Your task to perform on an android device: Open calendar and show me the third week of next month Image 0: 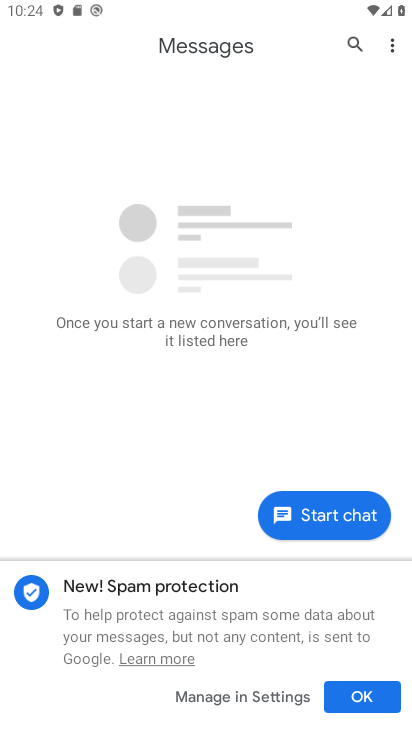
Step 0: press home button
Your task to perform on an android device: Open calendar and show me the third week of next month Image 1: 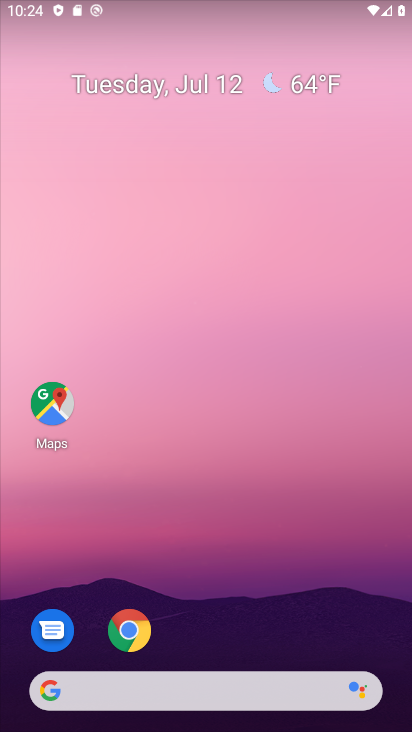
Step 1: drag from (345, 615) to (351, 174)
Your task to perform on an android device: Open calendar and show me the third week of next month Image 2: 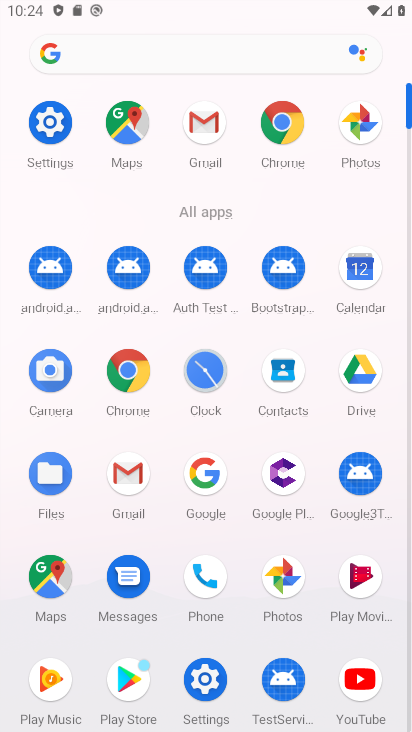
Step 2: click (356, 284)
Your task to perform on an android device: Open calendar and show me the third week of next month Image 3: 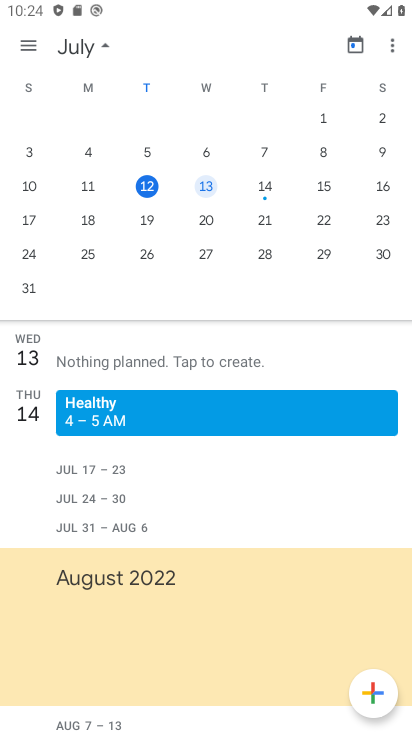
Step 3: drag from (390, 132) to (83, 120)
Your task to perform on an android device: Open calendar and show me the third week of next month Image 4: 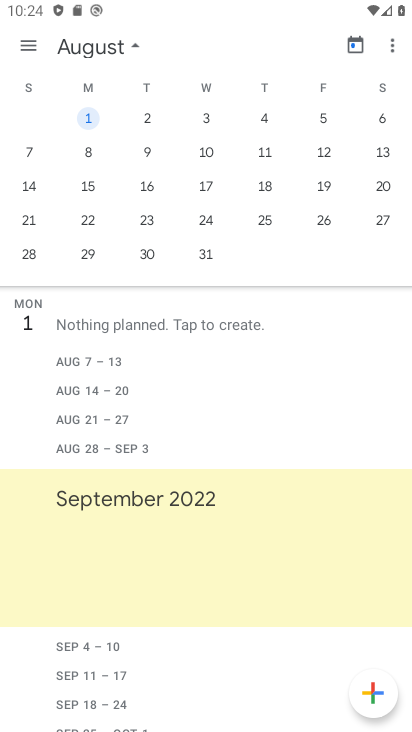
Step 4: click (92, 182)
Your task to perform on an android device: Open calendar and show me the third week of next month Image 5: 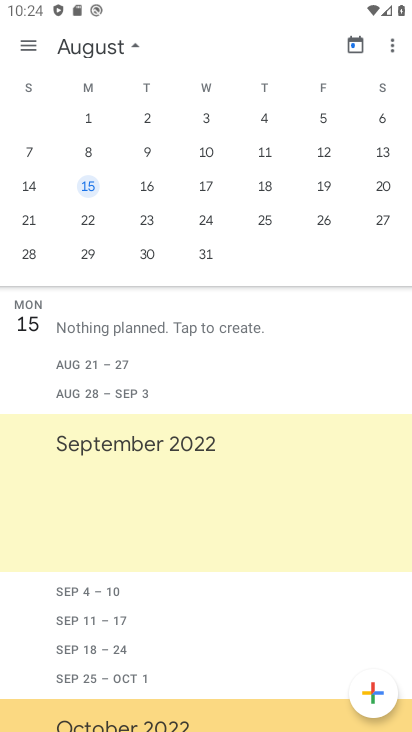
Step 5: task complete